Your task to perform on an android device: What's on my calendar today? Image 0: 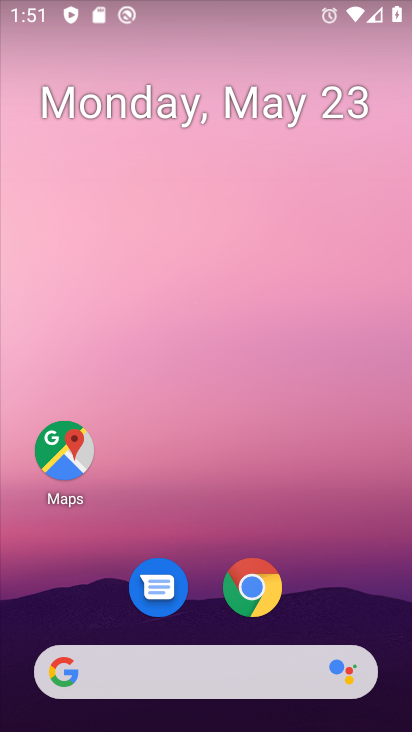
Step 0: drag from (342, 605) to (356, 108)
Your task to perform on an android device: What's on my calendar today? Image 1: 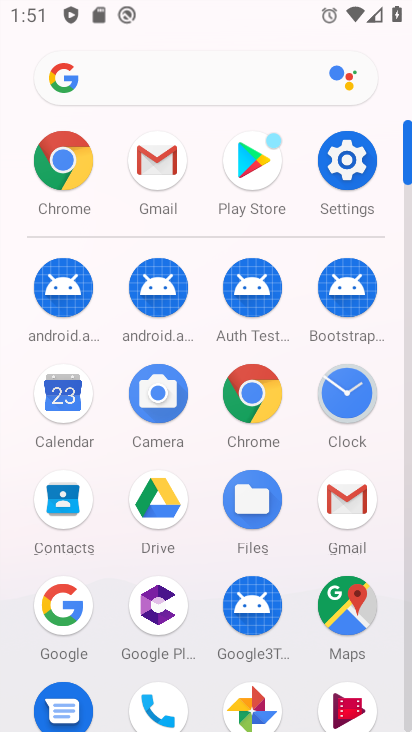
Step 1: click (71, 415)
Your task to perform on an android device: What's on my calendar today? Image 2: 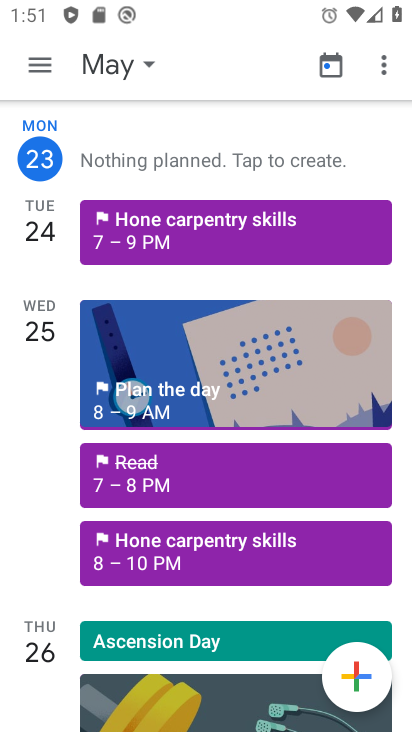
Step 2: task complete